Your task to perform on an android device: Search for sushi restaurants on Maps Image 0: 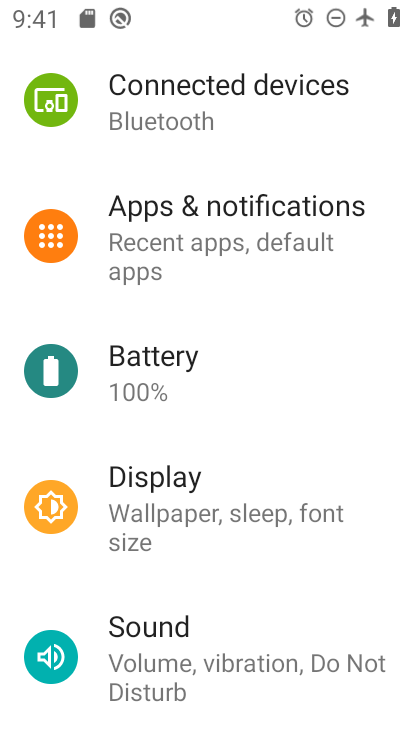
Step 0: press home button
Your task to perform on an android device: Search for sushi restaurants on Maps Image 1: 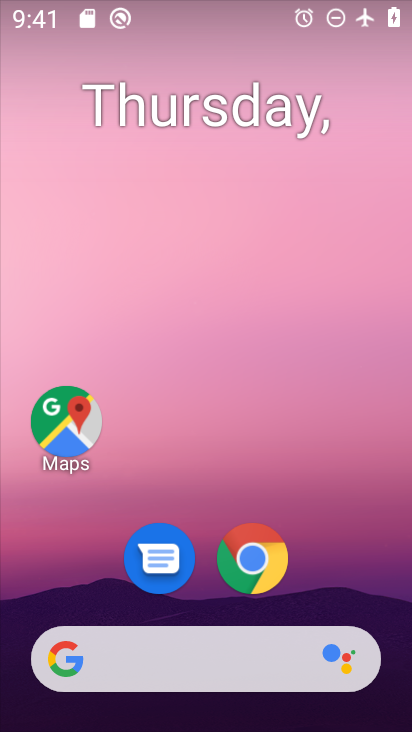
Step 1: click (58, 417)
Your task to perform on an android device: Search for sushi restaurants on Maps Image 2: 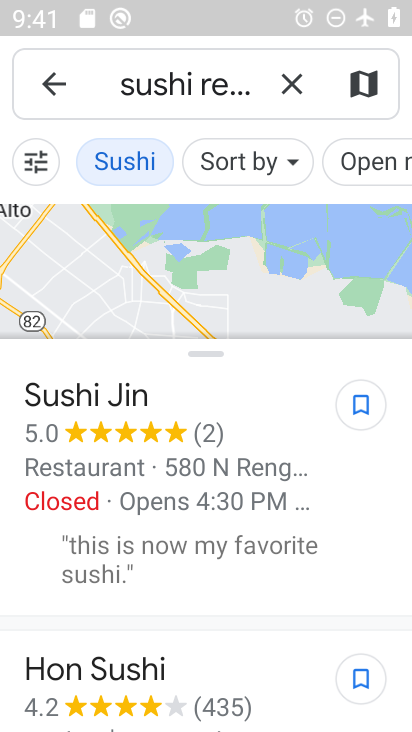
Step 2: task complete